Your task to perform on an android device: Open maps Image 0: 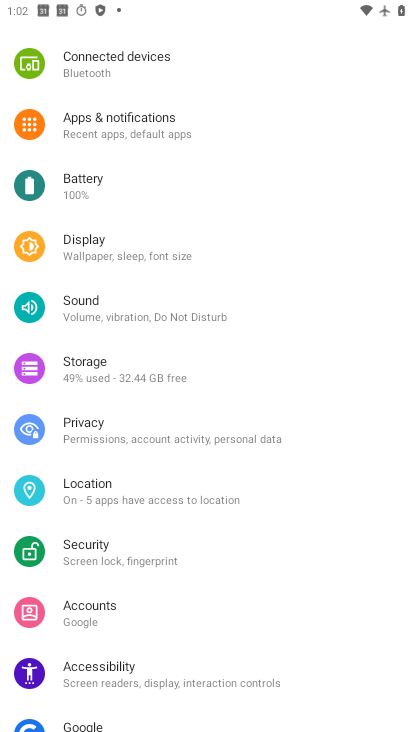
Step 0: drag from (389, 640) to (309, 97)
Your task to perform on an android device: Open maps Image 1: 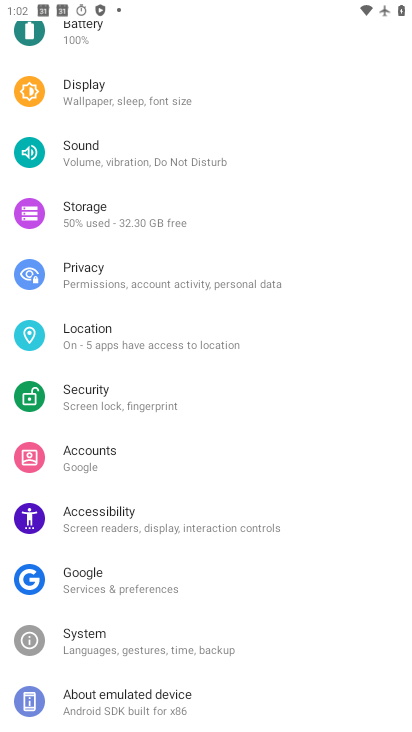
Step 1: press home button
Your task to perform on an android device: Open maps Image 2: 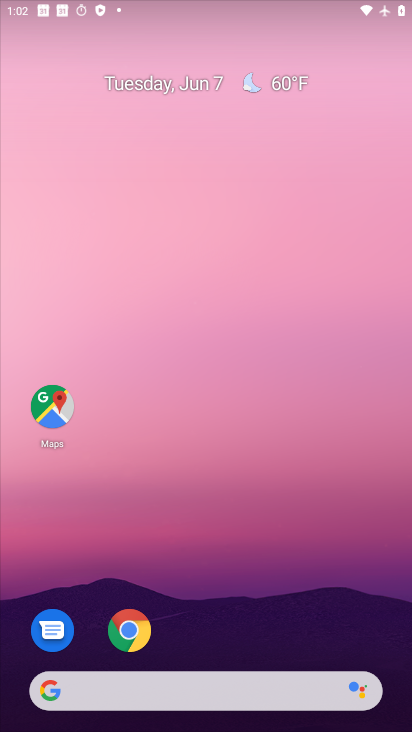
Step 2: drag from (392, 604) to (258, 50)
Your task to perform on an android device: Open maps Image 3: 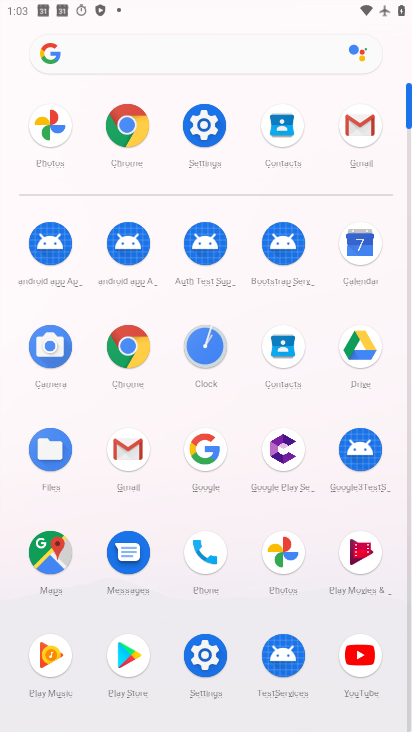
Step 3: click (50, 556)
Your task to perform on an android device: Open maps Image 4: 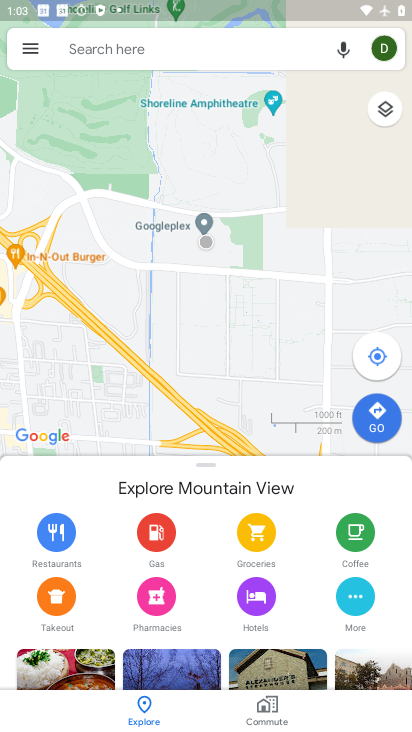
Step 4: task complete